Your task to perform on an android device: Go to notification settings Image 0: 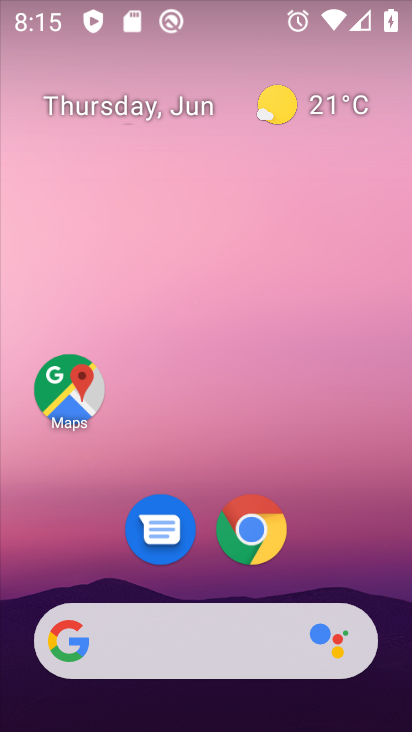
Step 0: click (363, 516)
Your task to perform on an android device: Go to notification settings Image 1: 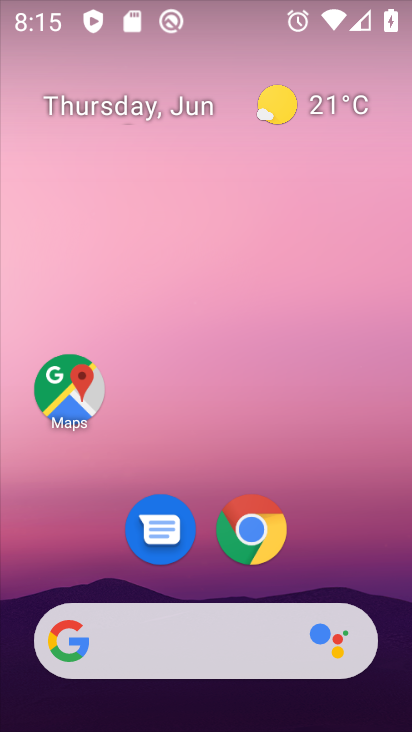
Step 1: drag from (389, 700) to (389, 179)
Your task to perform on an android device: Go to notification settings Image 2: 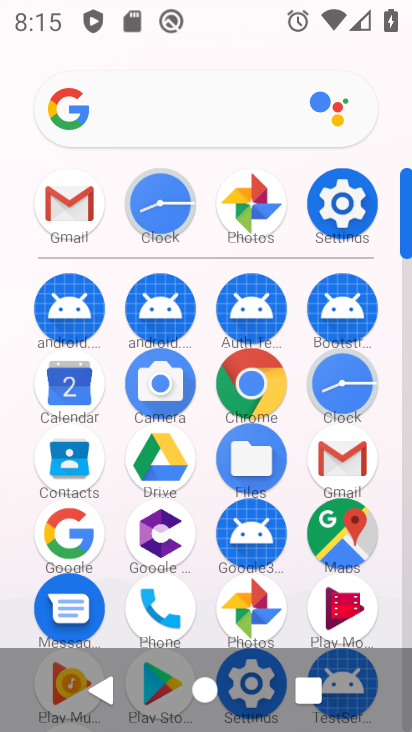
Step 2: click (339, 186)
Your task to perform on an android device: Go to notification settings Image 3: 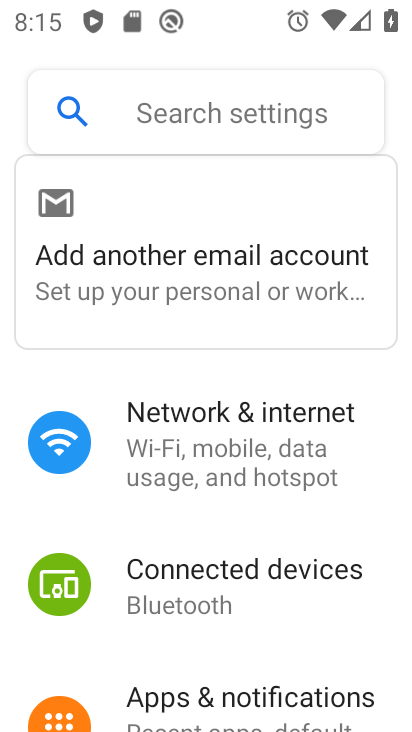
Step 3: click (206, 701)
Your task to perform on an android device: Go to notification settings Image 4: 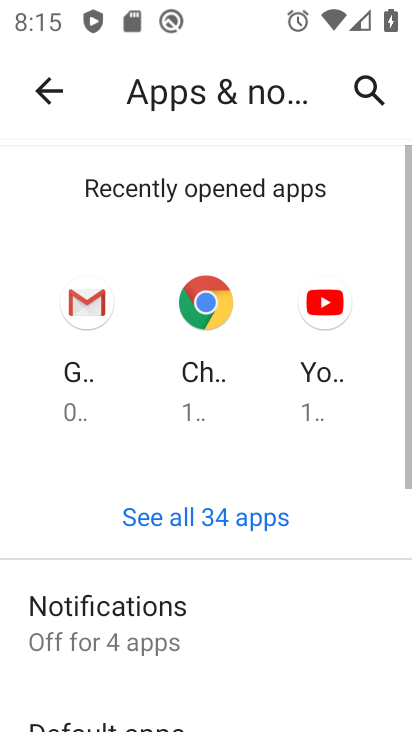
Step 4: click (121, 617)
Your task to perform on an android device: Go to notification settings Image 5: 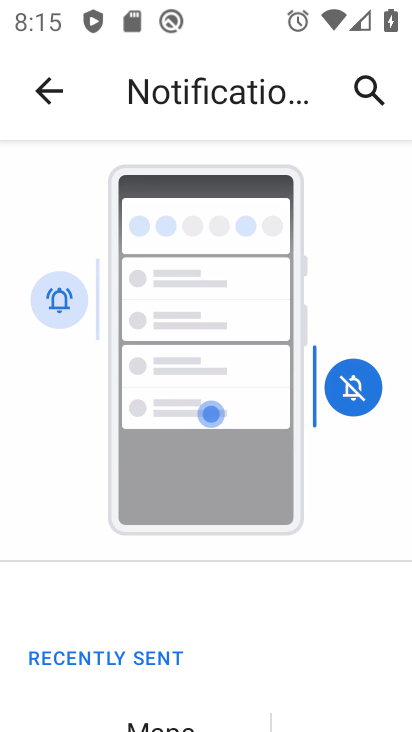
Step 5: drag from (275, 700) to (285, 279)
Your task to perform on an android device: Go to notification settings Image 6: 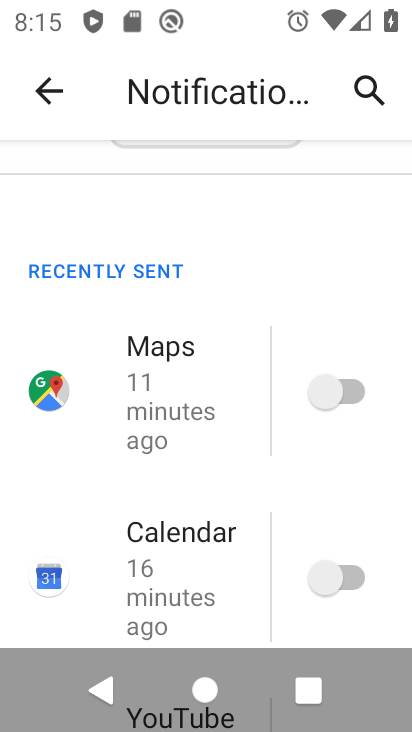
Step 6: drag from (245, 629) to (237, 300)
Your task to perform on an android device: Go to notification settings Image 7: 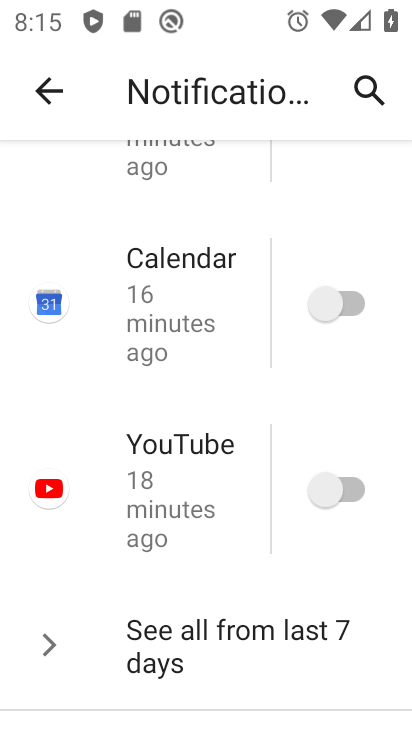
Step 7: drag from (276, 535) to (274, 232)
Your task to perform on an android device: Go to notification settings Image 8: 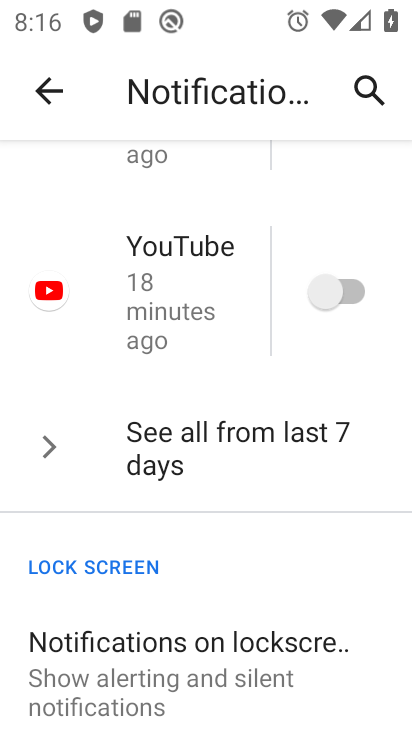
Step 8: drag from (255, 714) to (265, 240)
Your task to perform on an android device: Go to notification settings Image 9: 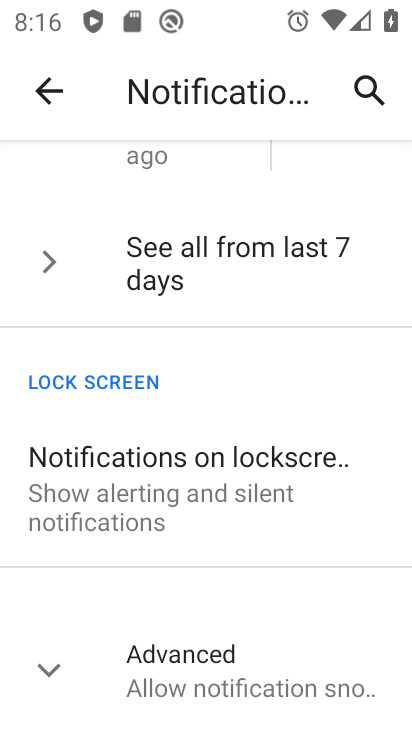
Step 9: click (39, 672)
Your task to perform on an android device: Go to notification settings Image 10: 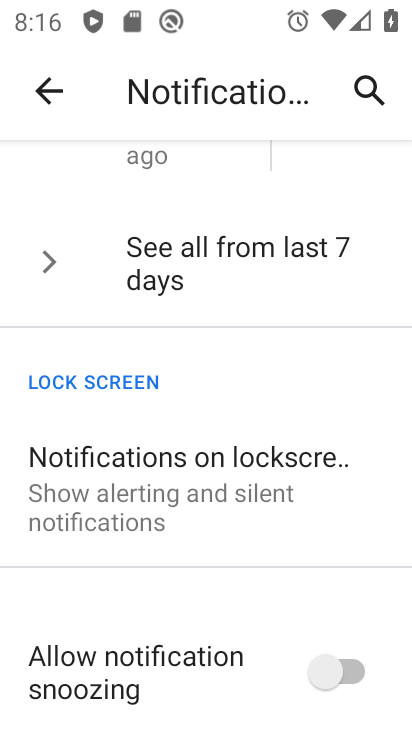
Step 10: task complete